Your task to perform on an android device: Open the phone app and click the voicemail tab. Image 0: 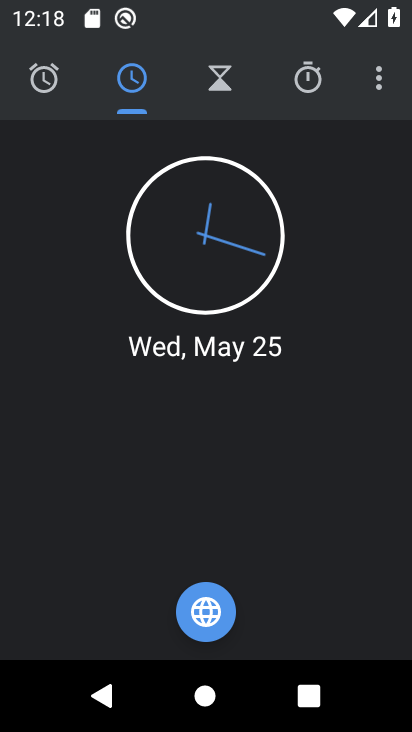
Step 0: press back button
Your task to perform on an android device: Open the phone app and click the voicemail tab. Image 1: 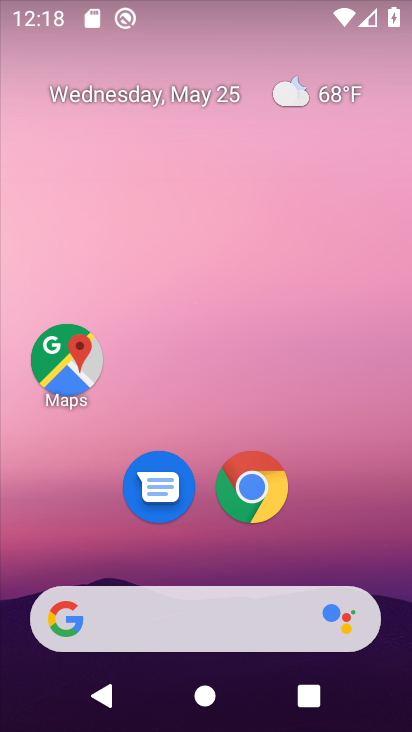
Step 1: drag from (235, 533) to (256, 78)
Your task to perform on an android device: Open the phone app and click the voicemail tab. Image 2: 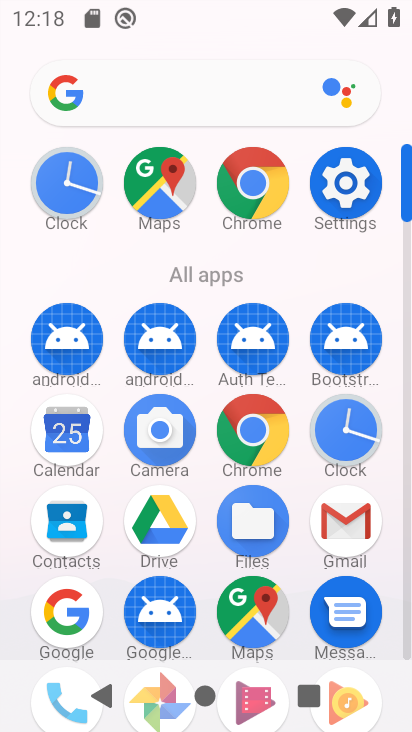
Step 2: drag from (284, 558) to (337, 108)
Your task to perform on an android device: Open the phone app and click the voicemail tab. Image 3: 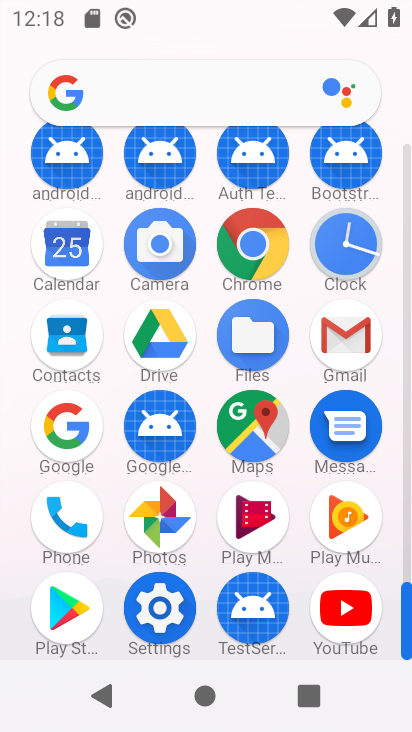
Step 3: click (62, 517)
Your task to perform on an android device: Open the phone app and click the voicemail tab. Image 4: 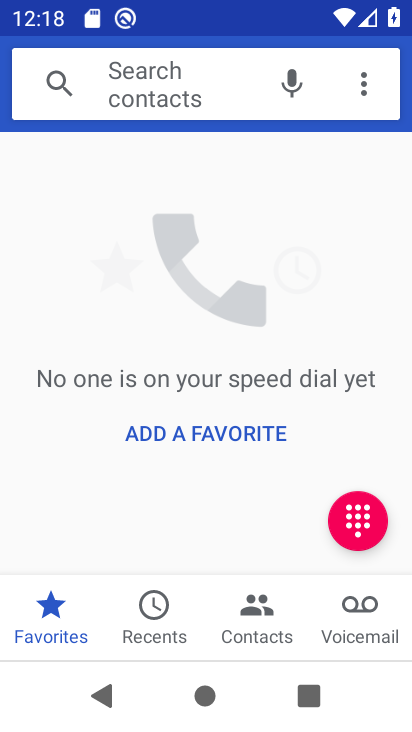
Step 4: click (348, 630)
Your task to perform on an android device: Open the phone app and click the voicemail tab. Image 5: 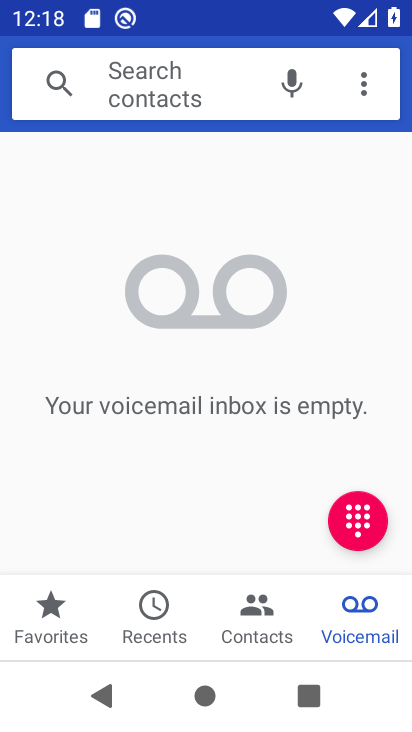
Step 5: task complete